Your task to perform on an android device: Empty the shopping cart on costco. Image 0: 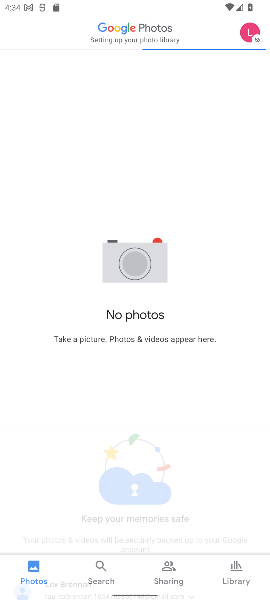
Step 0: press home button
Your task to perform on an android device: Empty the shopping cart on costco. Image 1: 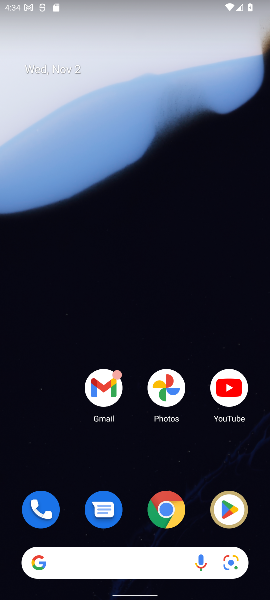
Step 1: click (136, 565)
Your task to perform on an android device: Empty the shopping cart on costco. Image 2: 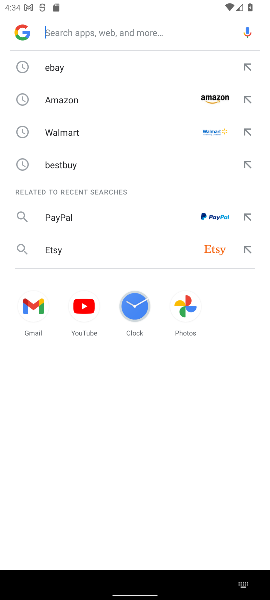
Step 2: type "costco"
Your task to perform on an android device: Empty the shopping cart on costco. Image 3: 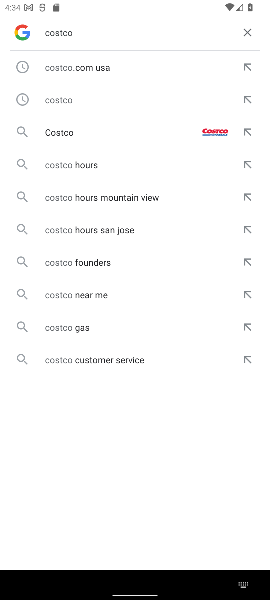
Step 3: click (58, 101)
Your task to perform on an android device: Empty the shopping cart on costco. Image 4: 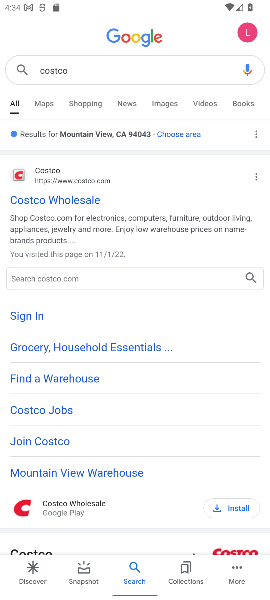
Step 4: click (71, 196)
Your task to perform on an android device: Empty the shopping cart on costco. Image 5: 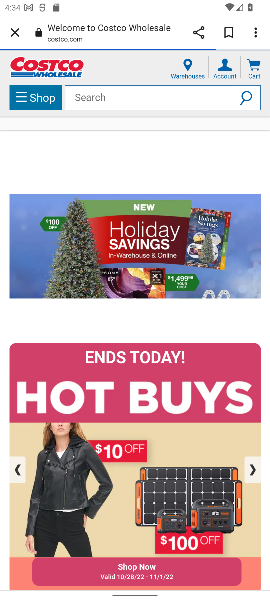
Step 5: click (116, 102)
Your task to perform on an android device: Empty the shopping cart on costco. Image 6: 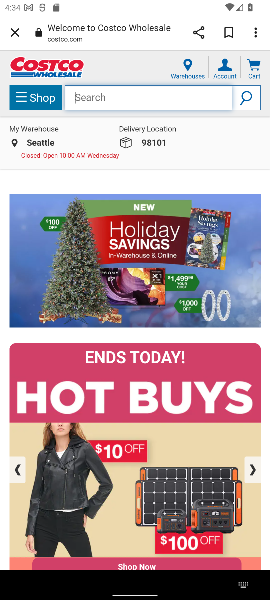
Step 6: click (254, 64)
Your task to perform on an android device: Empty the shopping cart on costco. Image 7: 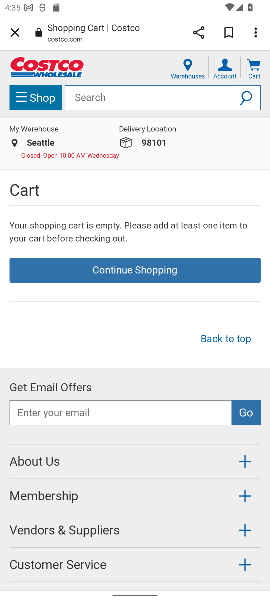
Step 7: task complete